Your task to perform on an android device: Search for Italian restaurants on Maps Image 0: 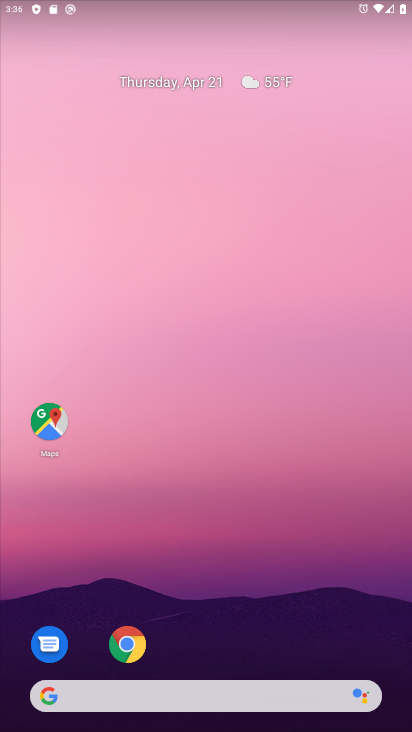
Step 0: drag from (237, 675) to (191, 7)
Your task to perform on an android device: Search for Italian restaurants on Maps Image 1: 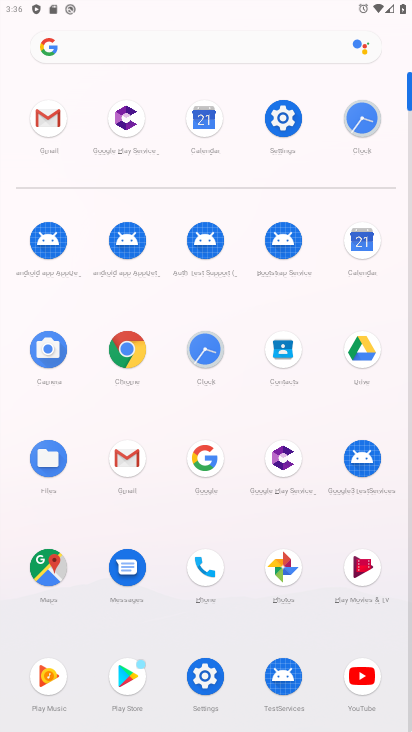
Step 1: click (54, 577)
Your task to perform on an android device: Search for Italian restaurants on Maps Image 2: 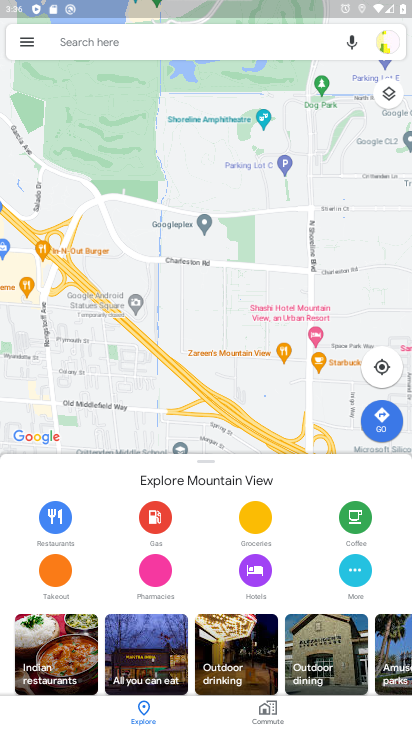
Step 2: click (155, 49)
Your task to perform on an android device: Search for Italian restaurants on Maps Image 3: 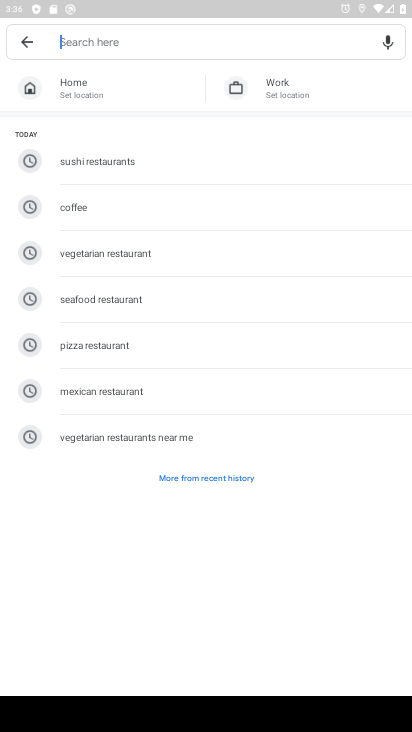
Step 3: type "italian"
Your task to perform on an android device: Search for Italian restaurants on Maps Image 4: 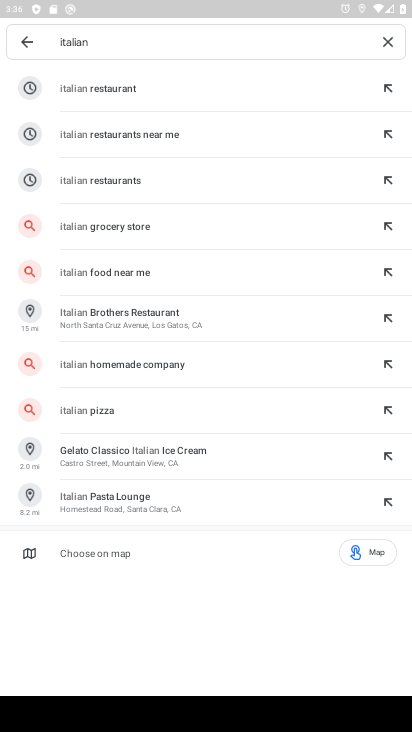
Step 4: click (151, 80)
Your task to perform on an android device: Search for Italian restaurants on Maps Image 5: 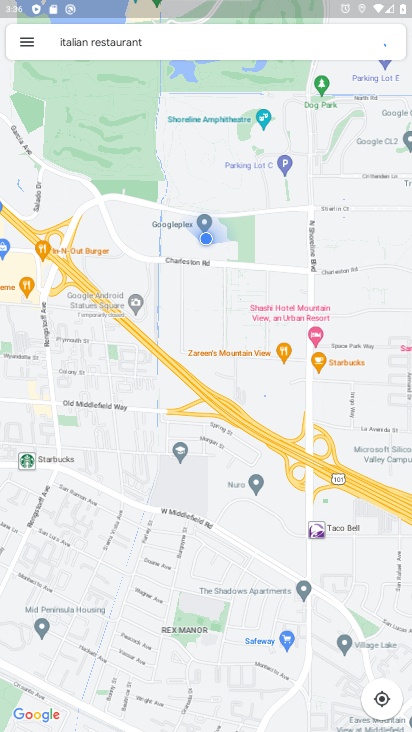
Step 5: task complete